Your task to perform on an android device: Go to display settings Image 0: 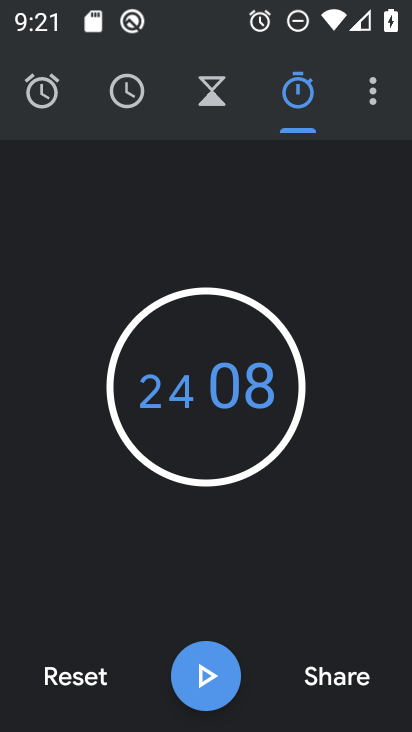
Step 0: press home button
Your task to perform on an android device: Go to display settings Image 1: 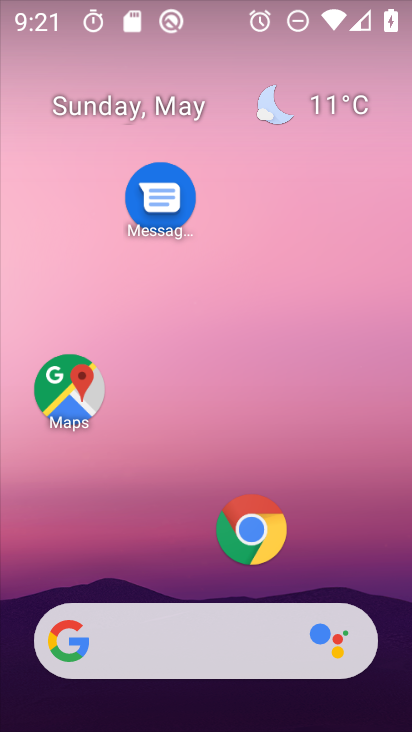
Step 1: drag from (198, 586) to (219, 99)
Your task to perform on an android device: Go to display settings Image 2: 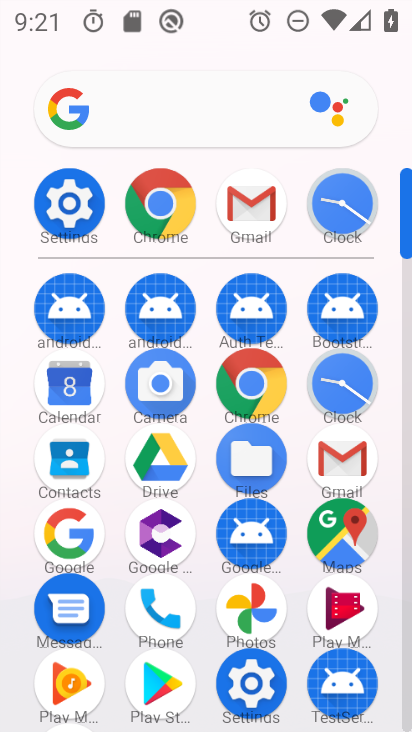
Step 2: click (68, 192)
Your task to perform on an android device: Go to display settings Image 3: 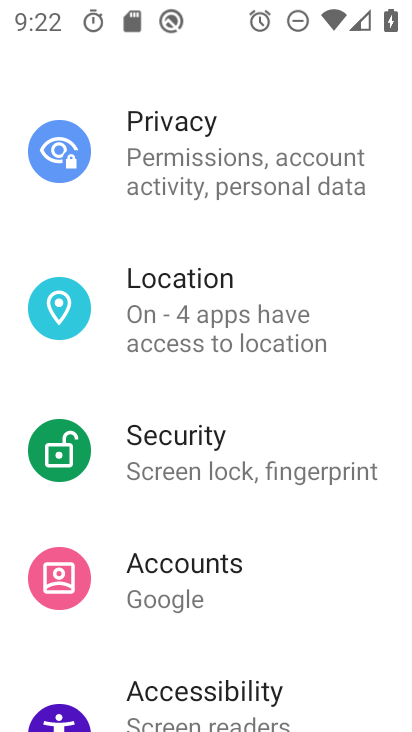
Step 3: drag from (168, 186) to (160, 723)
Your task to perform on an android device: Go to display settings Image 4: 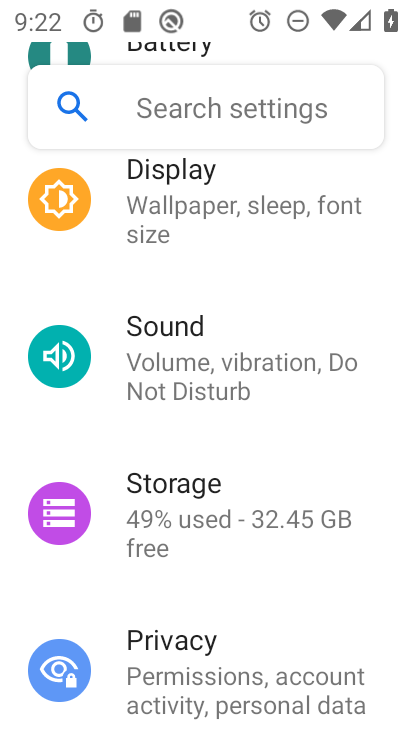
Step 4: click (120, 212)
Your task to perform on an android device: Go to display settings Image 5: 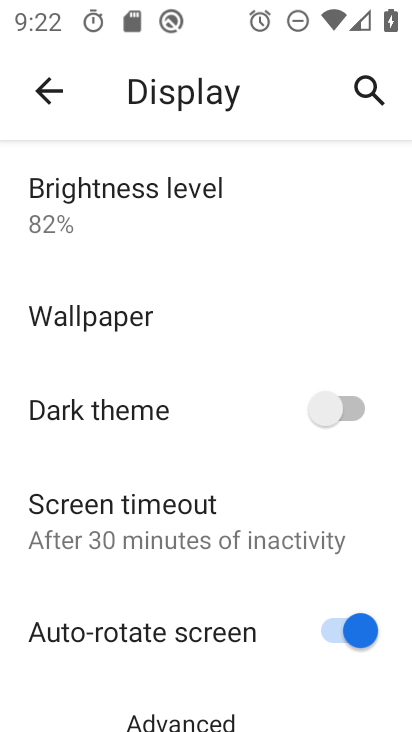
Step 5: drag from (198, 663) to (216, 198)
Your task to perform on an android device: Go to display settings Image 6: 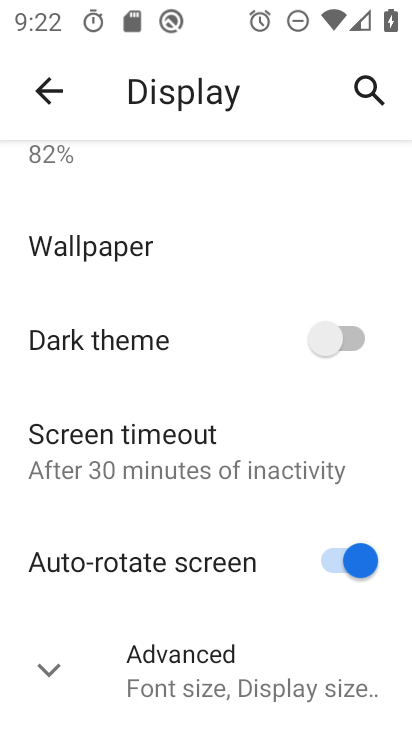
Step 6: click (46, 662)
Your task to perform on an android device: Go to display settings Image 7: 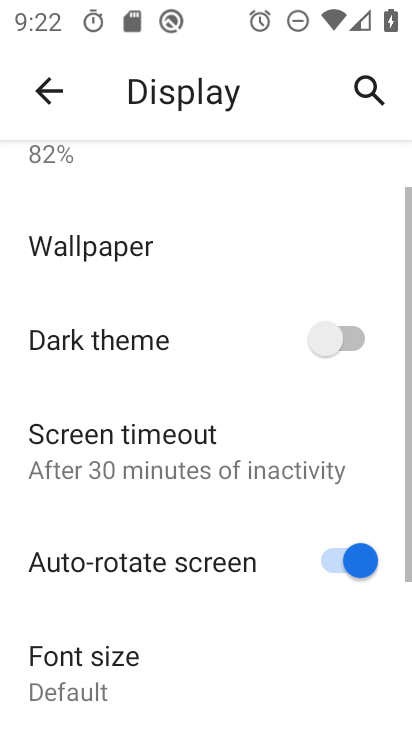
Step 7: task complete